Your task to perform on an android device: open sync settings in chrome Image 0: 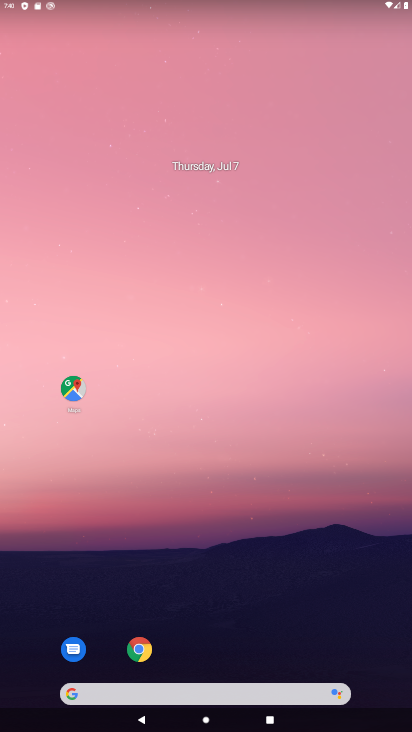
Step 0: press home button
Your task to perform on an android device: open sync settings in chrome Image 1: 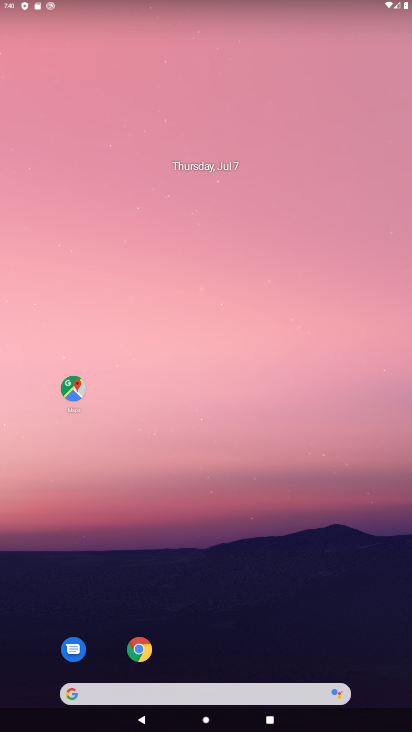
Step 1: click (137, 643)
Your task to perform on an android device: open sync settings in chrome Image 2: 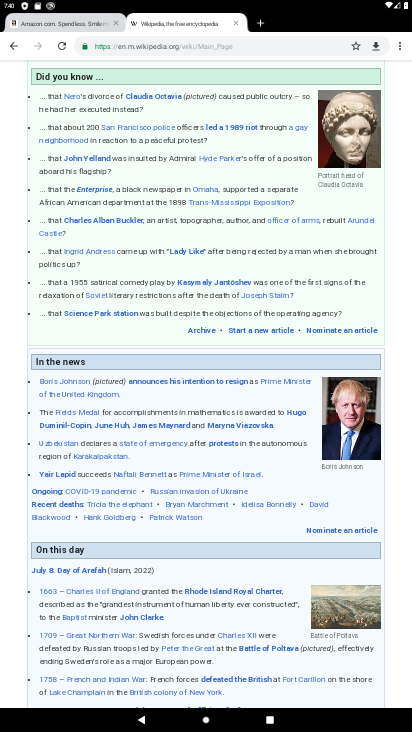
Step 2: click (398, 42)
Your task to perform on an android device: open sync settings in chrome Image 3: 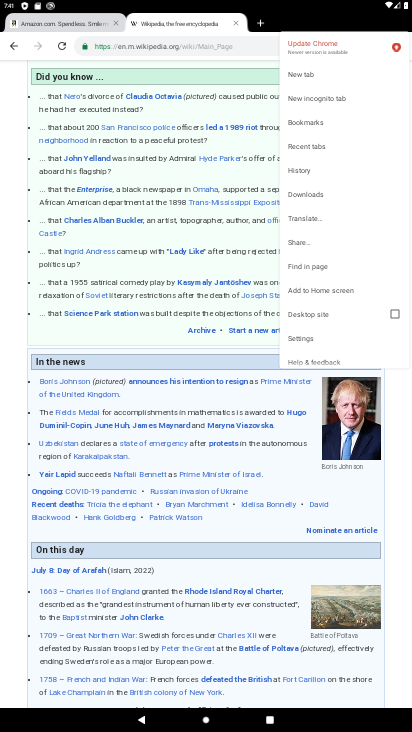
Step 3: click (312, 338)
Your task to perform on an android device: open sync settings in chrome Image 4: 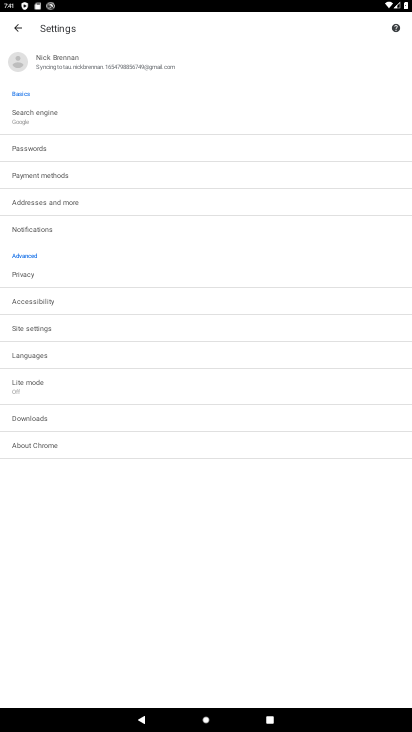
Step 4: click (97, 54)
Your task to perform on an android device: open sync settings in chrome Image 5: 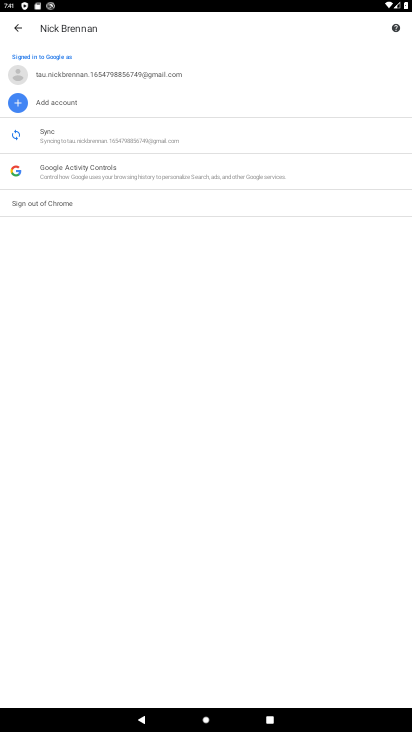
Step 5: click (74, 133)
Your task to perform on an android device: open sync settings in chrome Image 6: 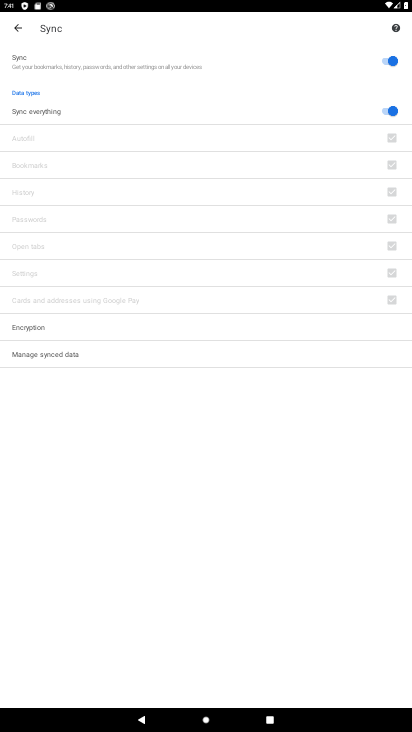
Step 6: task complete